Your task to perform on an android device: turn vacation reply on in the gmail app Image 0: 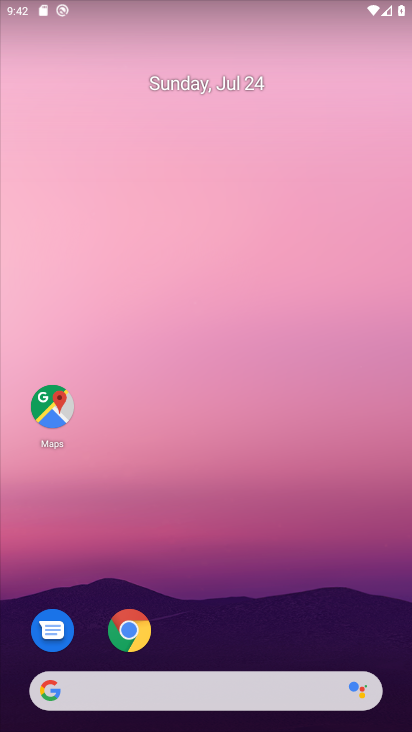
Step 0: drag from (186, 600) to (160, 34)
Your task to perform on an android device: turn vacation reply on in the gmail app Image 1: 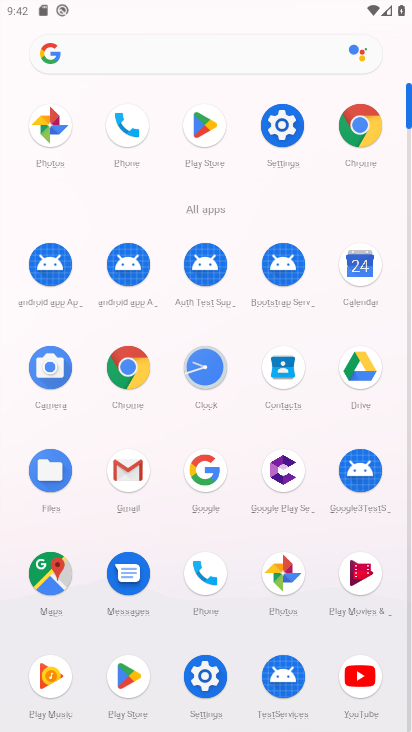
Step 1: click (124, 465)
Your task to perform on an android device: turn vacation reply on in the gmail app Image 2: 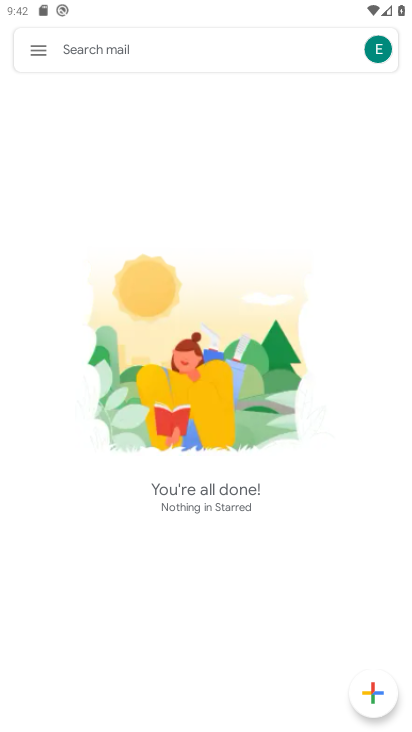
Step 2: click (31, 46)
Your task to perform on an android device: turn vacation reply on in the gmail app Image 3: 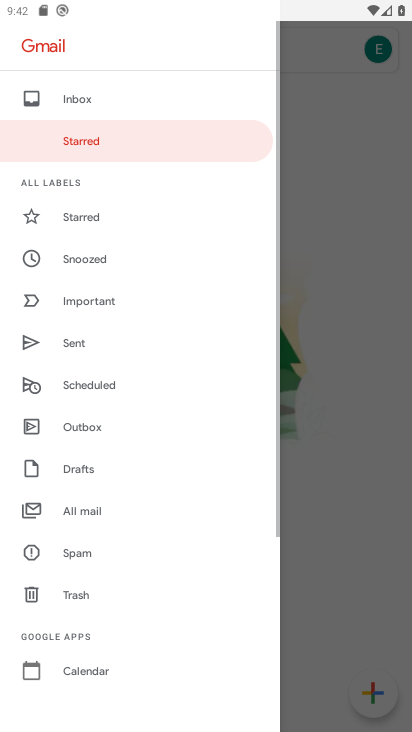
Step 3: drag from (110, 644) to (243, 0)
Your task to perform on an android device: turn vacation reply on in the gmail app Image 4: 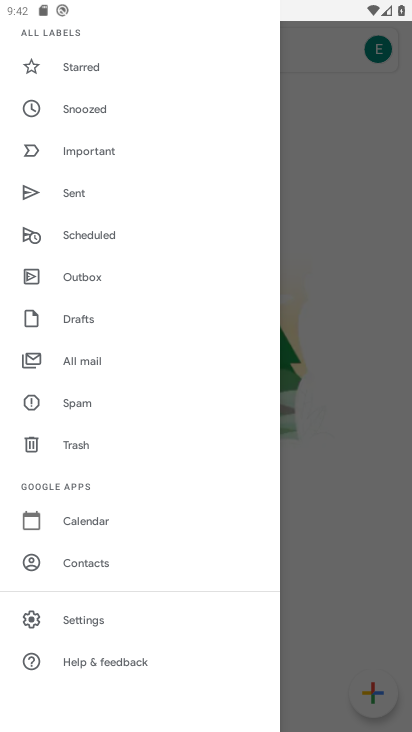
Step 4: click (119, 615)
Your task to perform on an android device: turn vacation reply on in the gmail app Image 5: 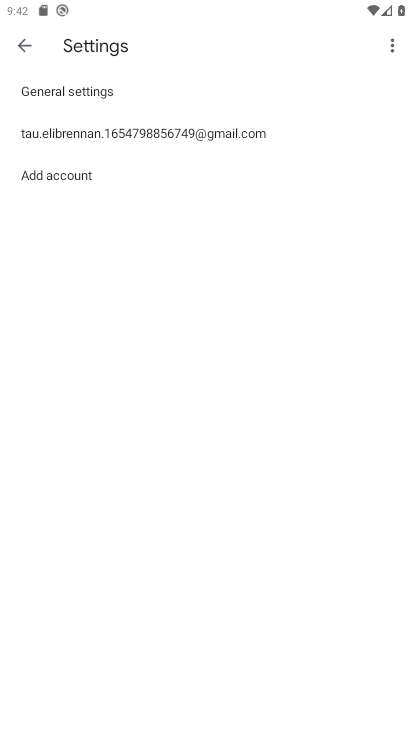
Step 5: click (78, 93)
Your task to perform on an android device: turn vacation reply on in the gmail app Image 6: 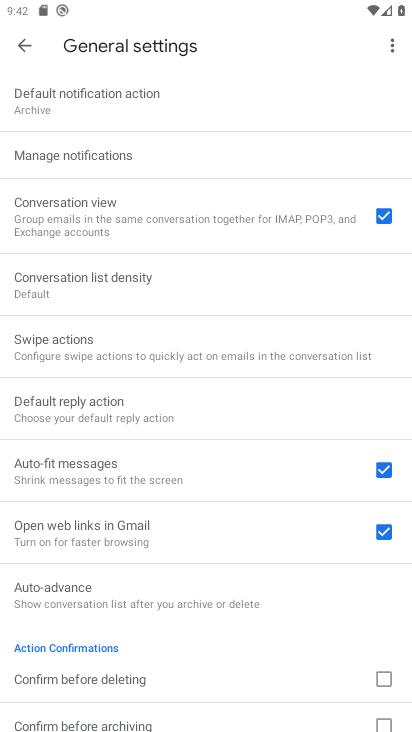
Step 6: drag from (193, 647) to (235, 56)
Your task to perform on an android device: turn vacation reply on in the gmail app Image 7: 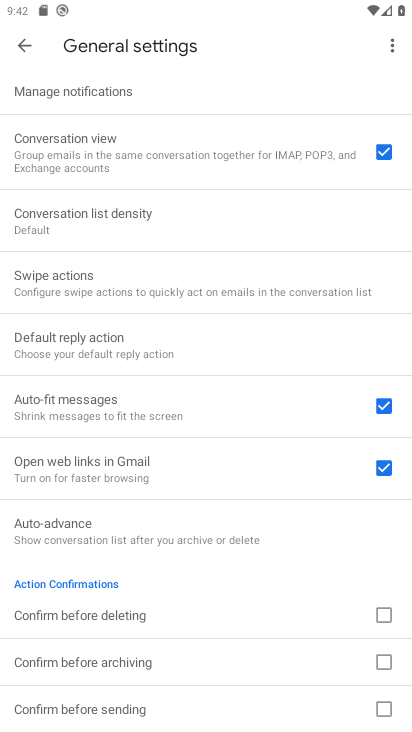
Step 7: click (26, 48)
Your task to perform on an android device: turn vacation reply on in the gmail app Image 8: 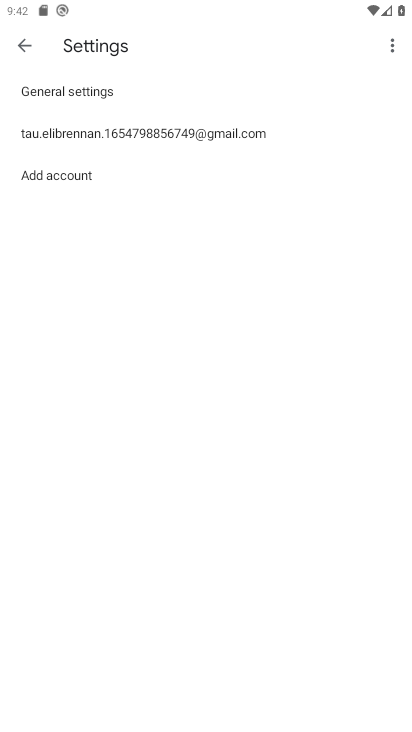
Step 8: click (69, 141)
Your task to perform on an android device: turn vacation reply on in the gmail app Image 9: 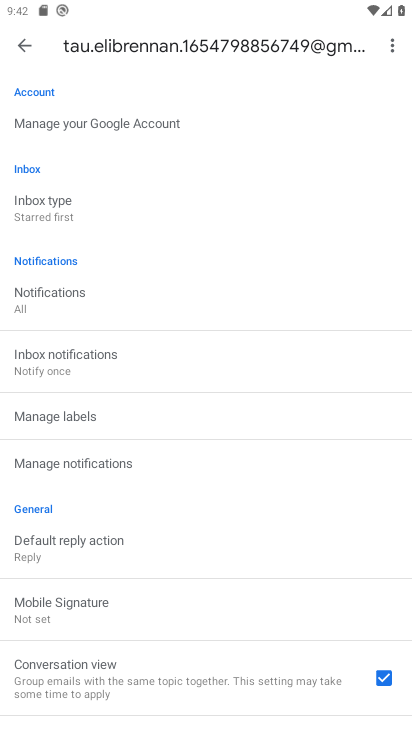
Step 9: drag from (146, 643) to (213, 143)
Your task to perform on an android device: turn vacation reply on in the gmail app Image 10: 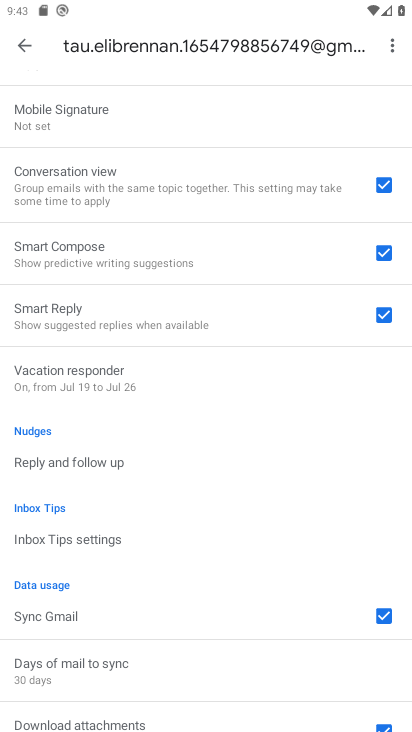
Step 10: click (87, 378)
Your task to perform on an android device: turn vacation reply on in the gmail app Image 11: 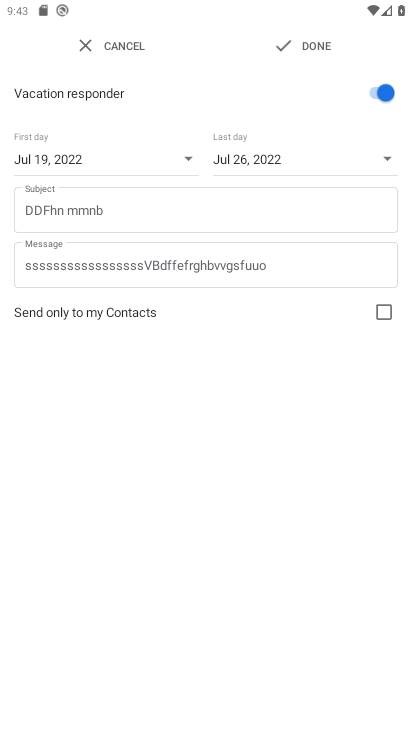
Step 11: click (373, 95)
Your task to perform on an android device: turn vacation reply on in the gmail app Image 12: 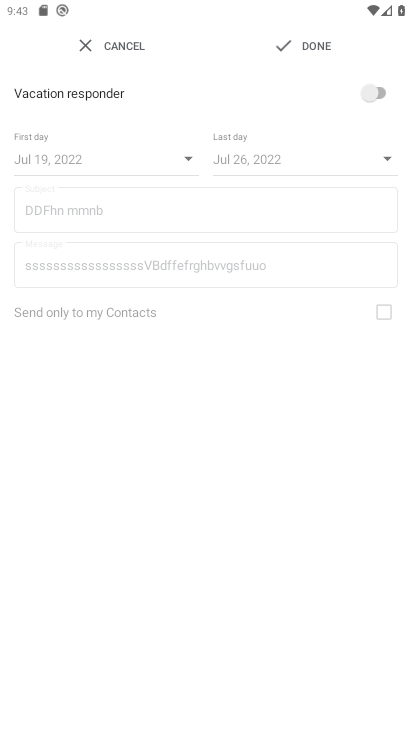
Step 12: click (368, 89)
Your task to perform on an android device: turn vacation reply on in the gmail app Image 13: 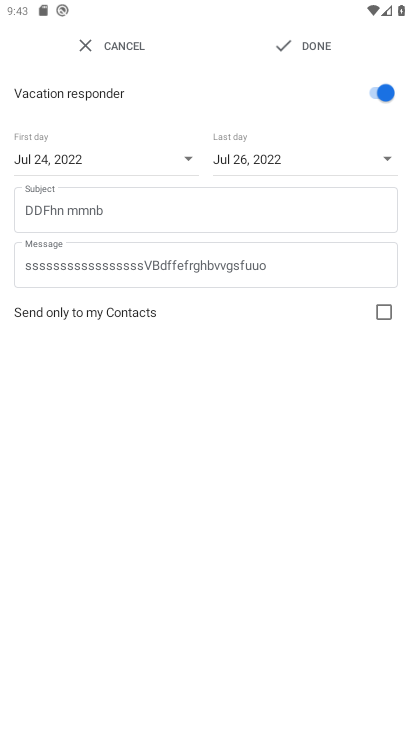
Step 13: task complete